Your task to perform on an android device: turn off airplane mode Image 0: 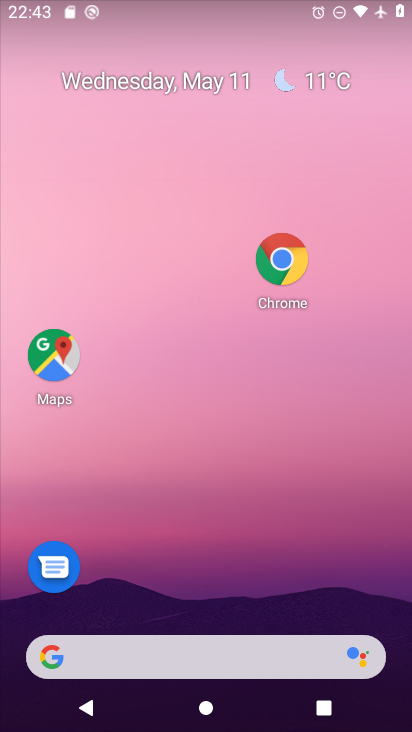
Step 0: drag from (205, 618) to (279, 183)
Your task to perform on an android device: turn off airplane mode Image 1: 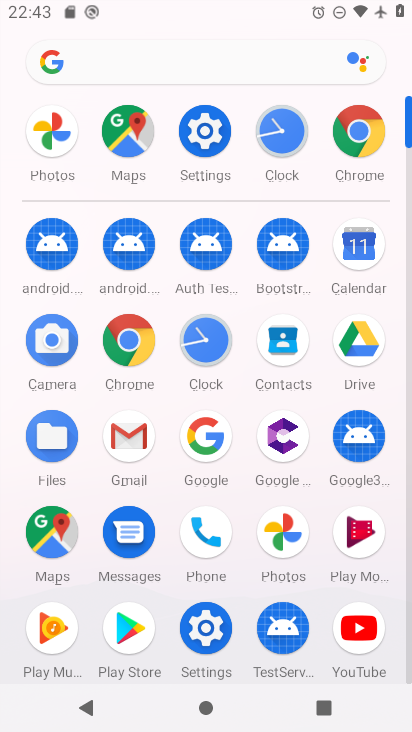
Step 1: click (196, 124)
Your task to perform on an android device: turn off airplane mode Image 2: 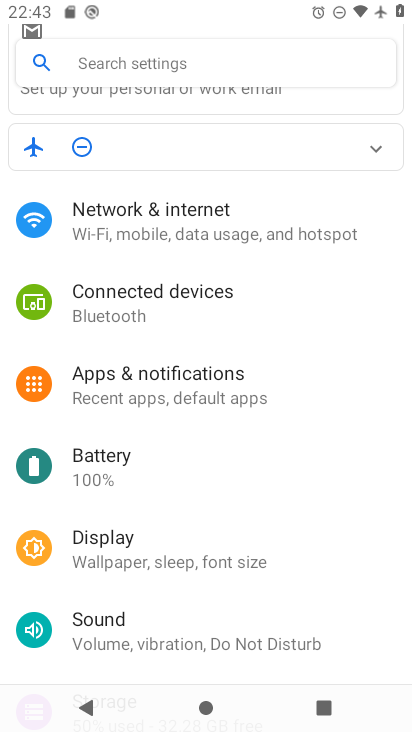
Step 2: click (178, 210)
Your task to perform on an android device: turn off airplane mode Image 3: 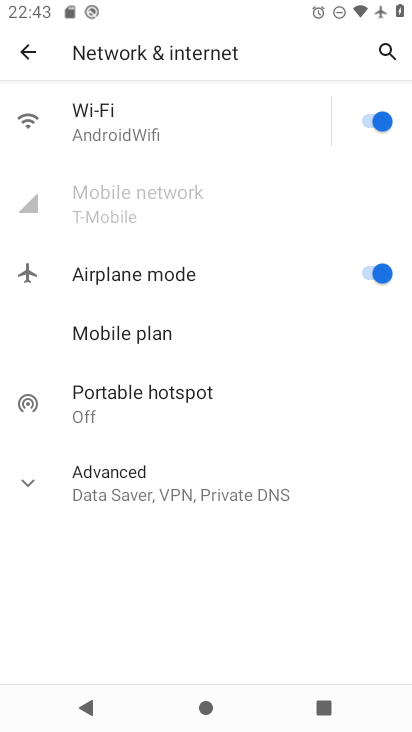
Step 3: click (369, 276)
Your task to perform on an android device: turn off airplane mode Image 4: 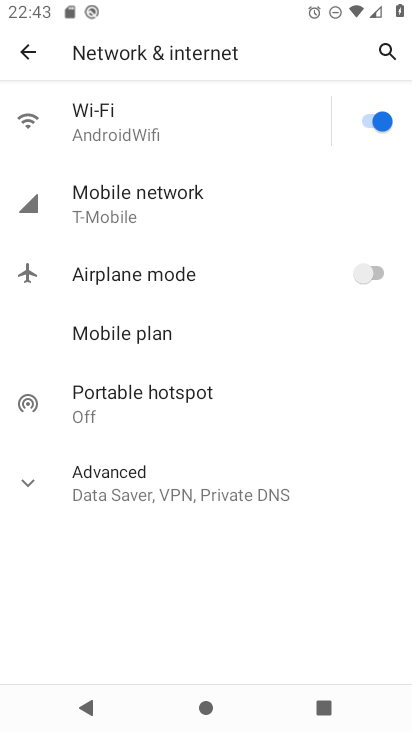
Step 4: task complete